Your task to perform on an android device: When is my next appointment? Image 0: 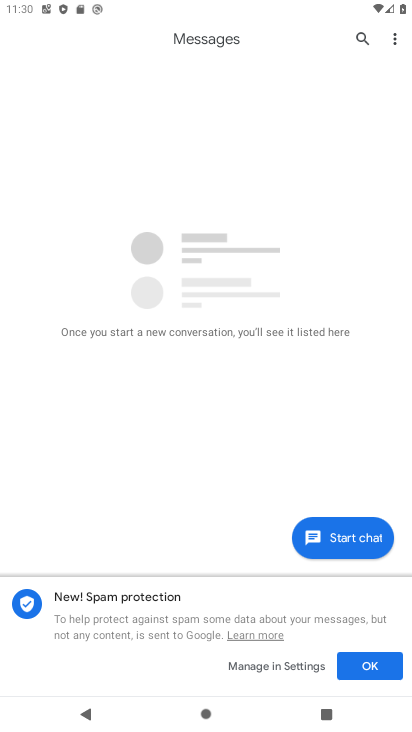
Step 0: press home button
Your task to perform on an android device: When is my next appointment? Image 1: 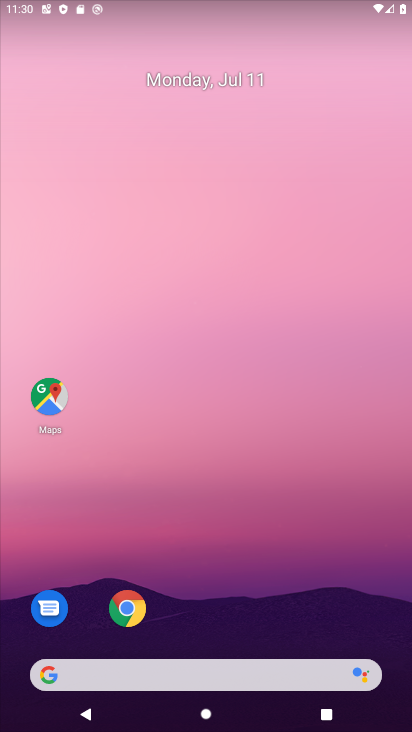
Step 1: drag from (181, 634) to (264, 49)
Your task to perform on an android device: When is my next appointment? Image 2: 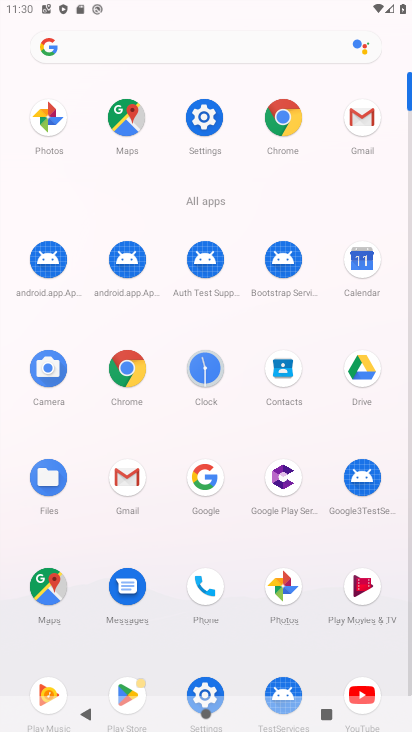
Step 2: click (360, 249)
Your task to perform on an android device: When is my next appointment? Image 3: 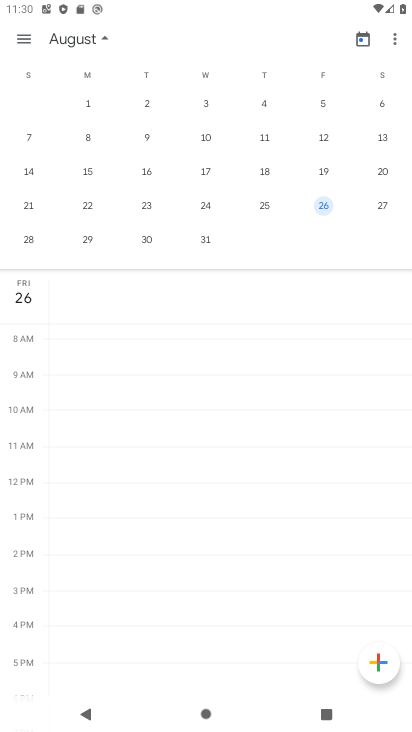
Step 3: task complete